Your task to perform on an android device: Go to Maps Image 0: 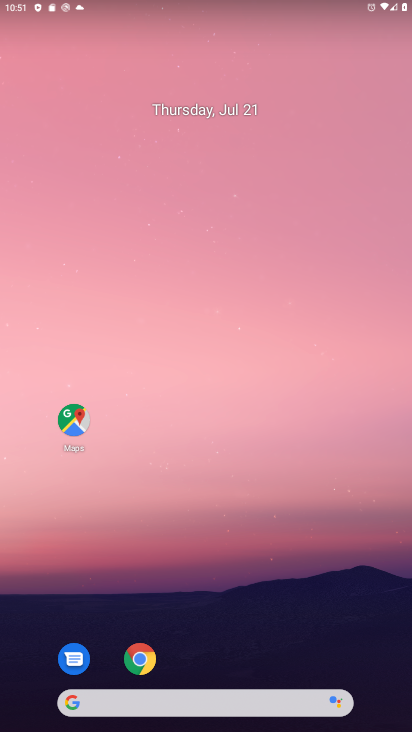
Step 0: click (86, 428)
Your task to perform on an android device: Go to Maps Image 1: 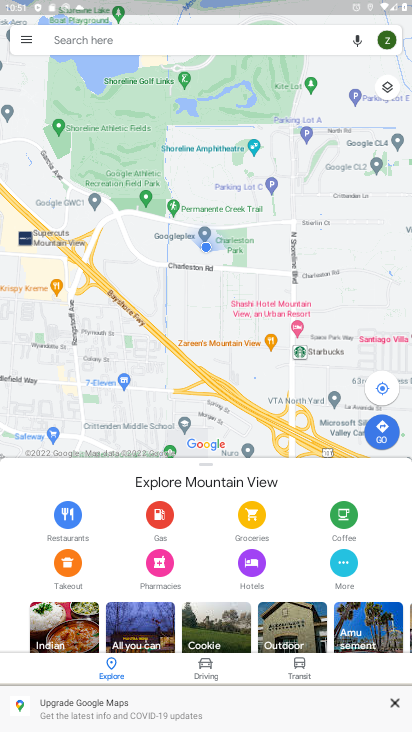
Step 1: task complete